Your task to perform on an android device: Open settings on Google Maps Image 0: 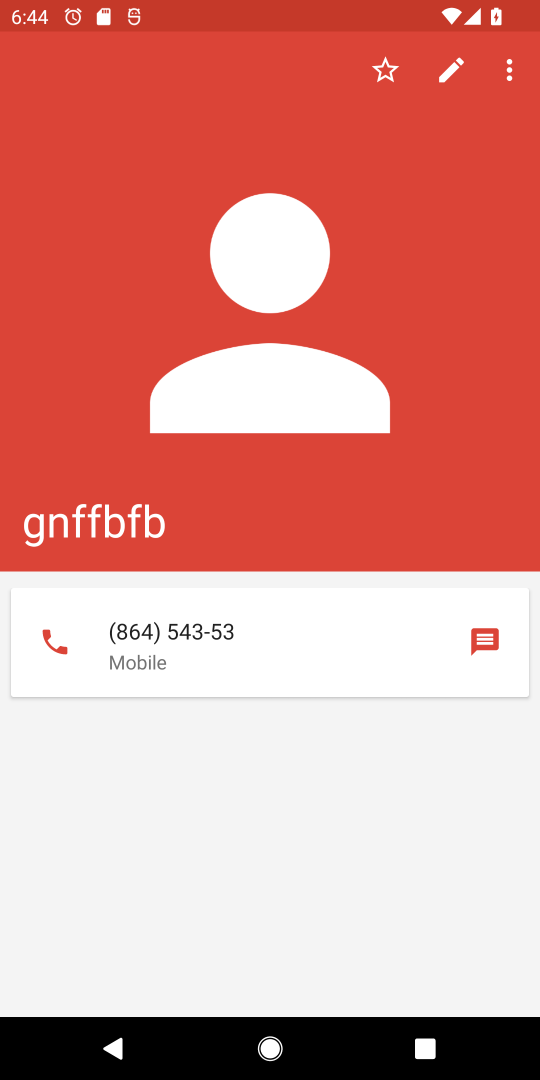
Step 0: press home button
Your task to perform on an android device: Open settings on Google Maps Image 1: 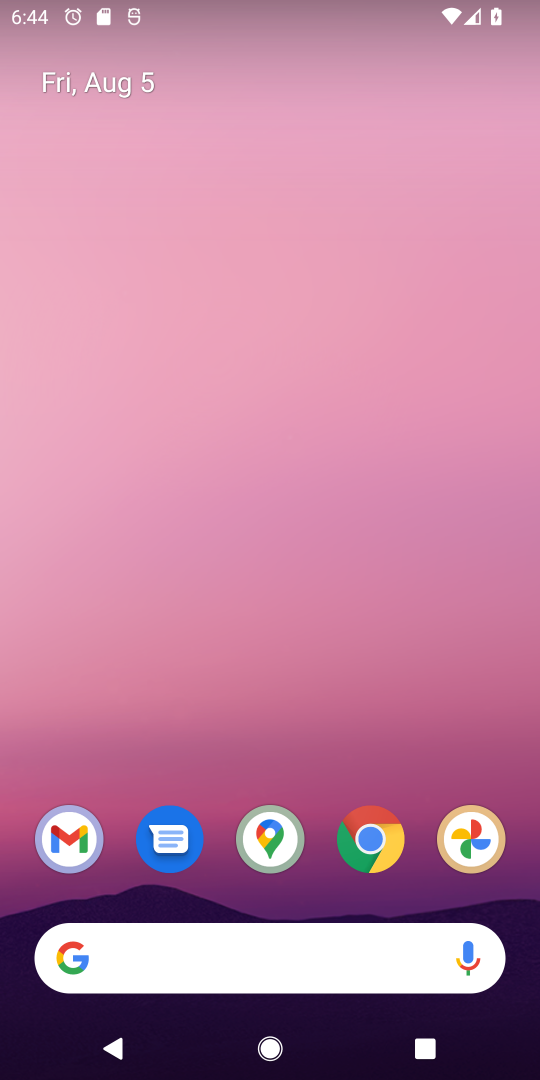
Step 1: click (283, 847)
Your task to perform on an android device: Open settings on Google Maps Image 2: 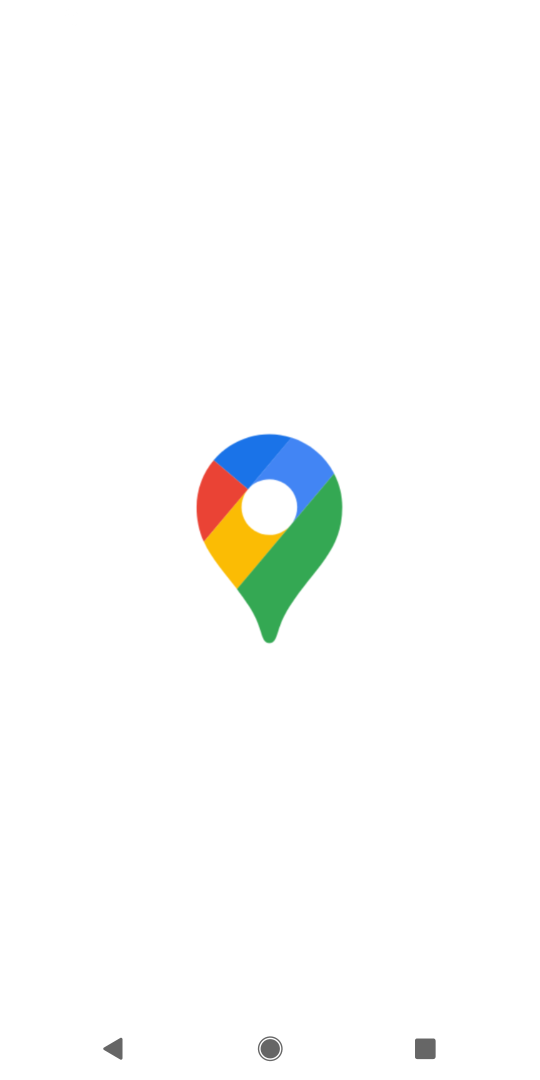
Step 2: task complete